Your task to perform on an android device: Search for seafood restaurants on Google Maps Image 0: 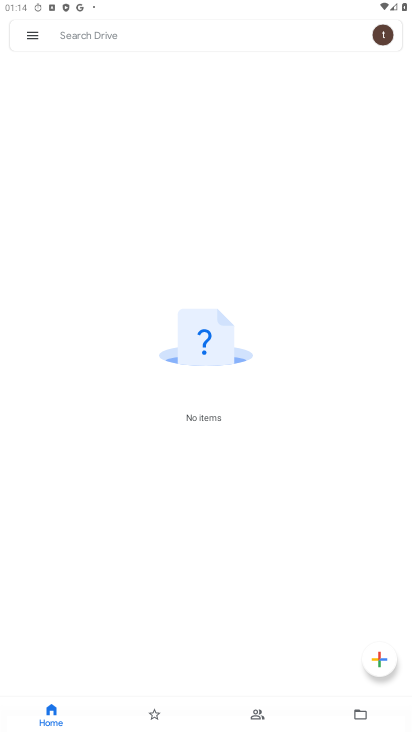
Step 0: press home button
Your task to perform on an android device: Search for seafood restaurants on Google Maps Image 1: 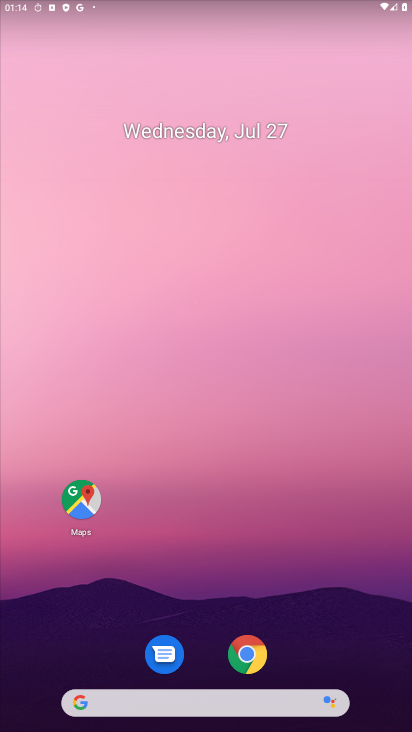
Step 1: drag from (240, 682) to (263, 0)
Your task to perform on an android device: Search for seafood restaurants on Google Maps Image 2: 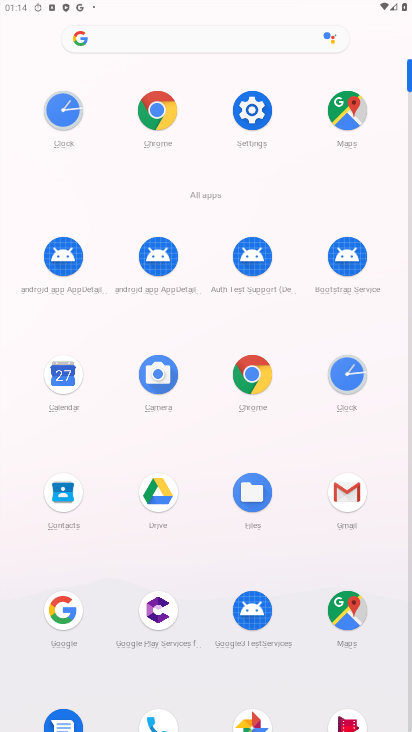
Step 2: click (348, 615)
Your task to perform on an android device: Search for seafood restaurants on Google Maps Image 3: 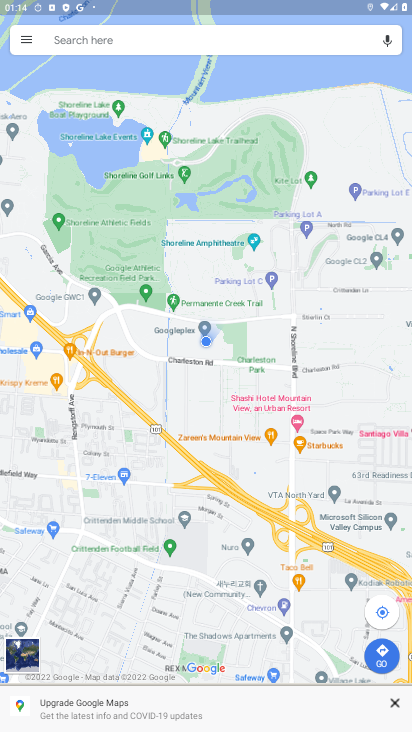
Step 3: click (190, 44)
Your task to perform on an android device: Search for seafood restaurants on Google Maps Image 4: 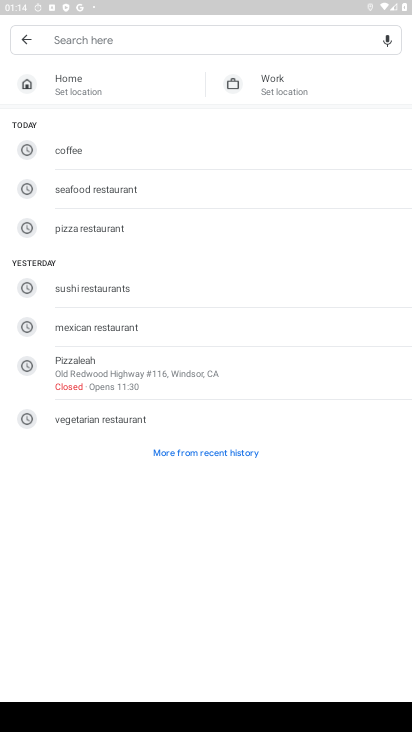
Step 4: click (176, 189)
Your task to perform on an android device: Search for seafood restaurants on Google Maps Image 5: 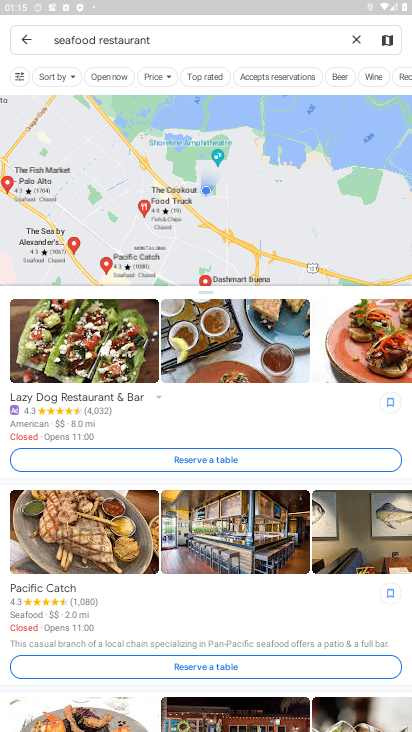
Step 5: task complete